Your task to perform on an android device: Search for the best rated vacuums on Target Image 0: 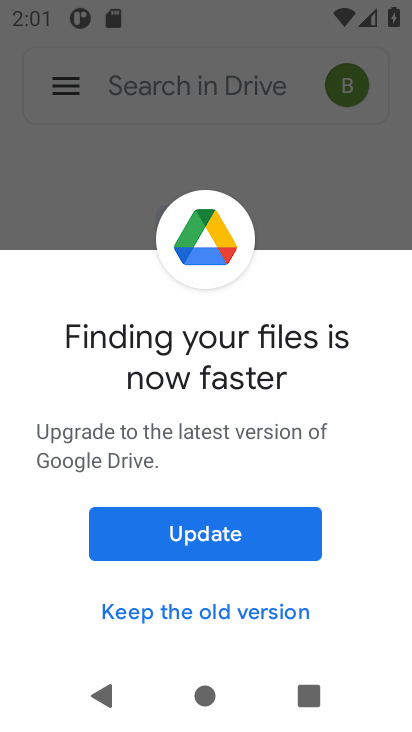
Step 0: press home button
Your task to perform on an android device: Search for the best rated vacuums on Target Image 1: 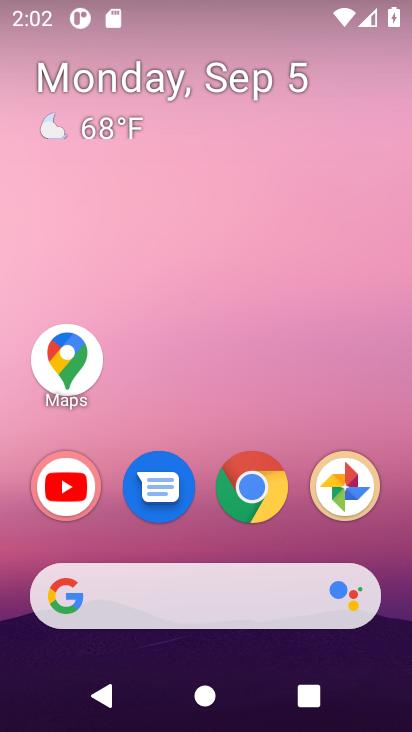
Step 1: click (247, 489)
Your task to perform on an android device: Search for the best rated vacuums on Target Image 2: 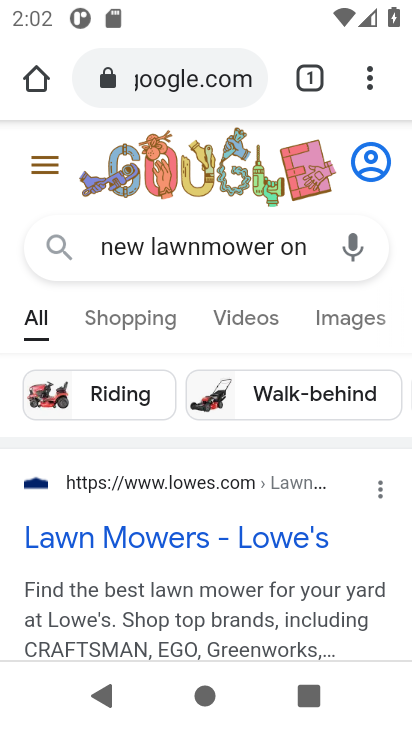
Step 2: click (226, 78)
Your task to perform on an android device: Search for the best rated vacuums on Target Image 3: 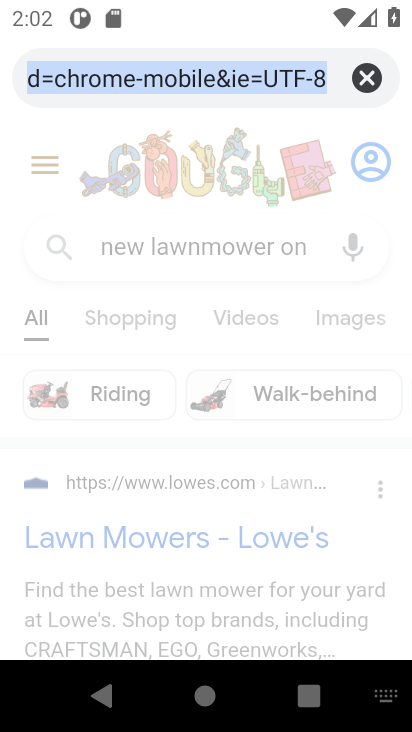
Step 3: click (362, 75)
Your task to perform on an android device: Search for the best rated vacuums on Target Image 4: 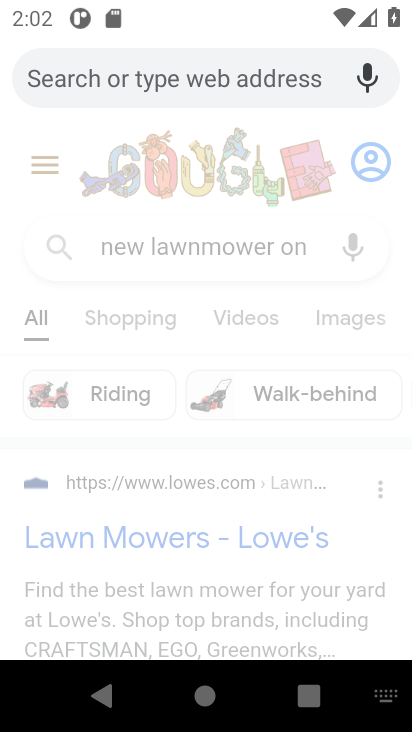
Step 4: type "the best rated vacuums on Target"
Your task to perform on an android device: Search for the best rated vacuums on Target Image 5: 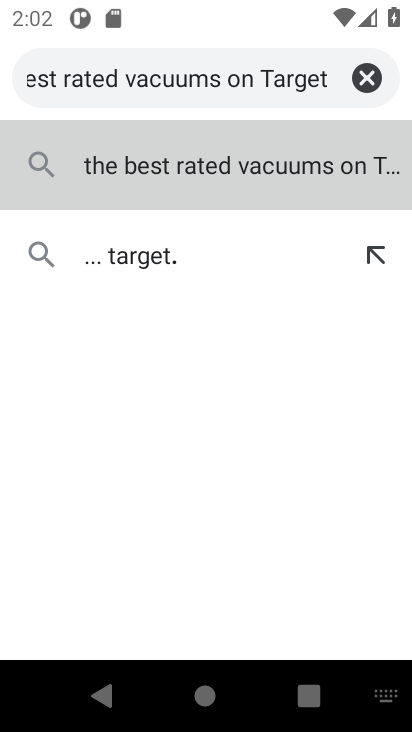
Step 5: click (267, 178)
Your task to perform on an android device: Search for the best rated vacuums on Target Image 6: 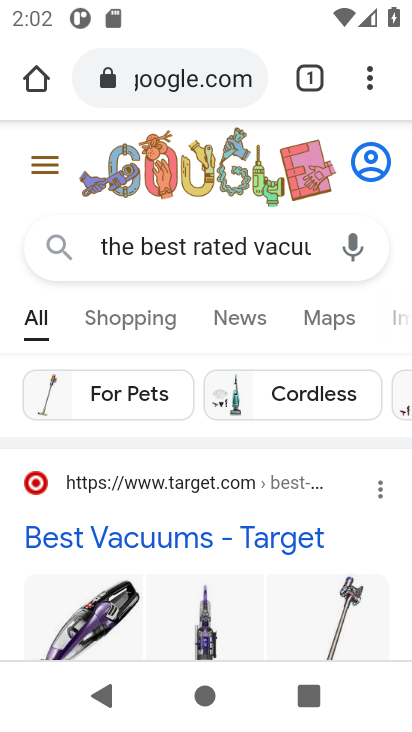
Step 6: task complete